Your task to perform on an android device: turn off airplane mode Image 0: 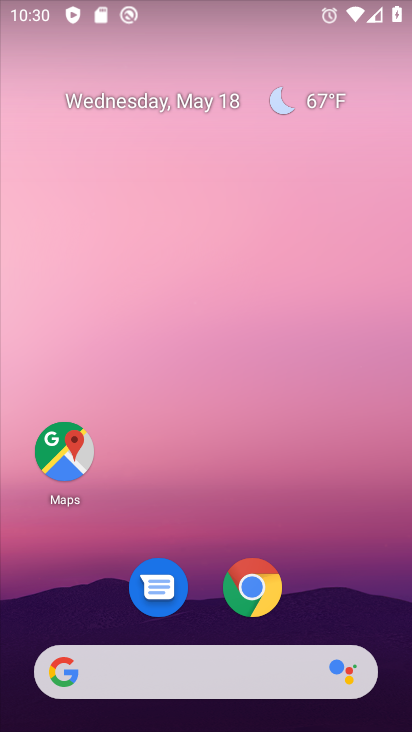
Step 0: drag from (334, 579) to (337, 102)
Your task to perform on an android device: turn off airplane mode Image 1: 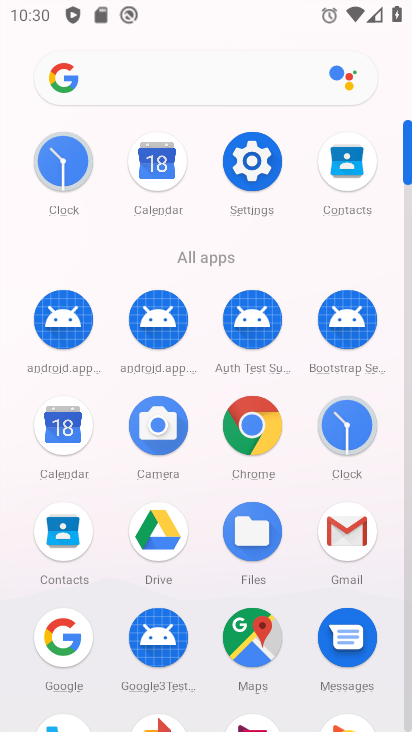
Step 1: click (254, 161)
Your task to perform on an android device: turn off airplane mode Image 2: 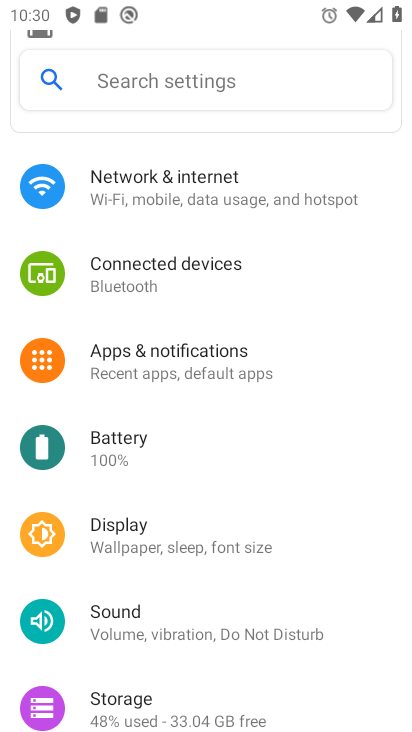
Step 2: click (241, 200)
Your task to perform on an android device: turn off airplane mode Image 3: 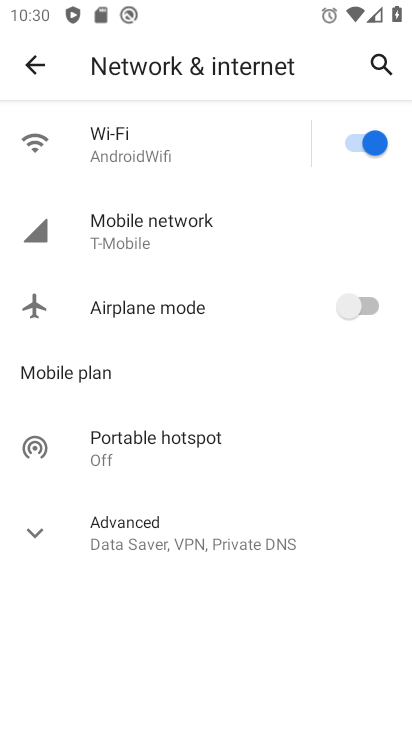
Step 3: task complete